Your task to perform on an android device: toggle notifications settings in the gmail app Image 0: 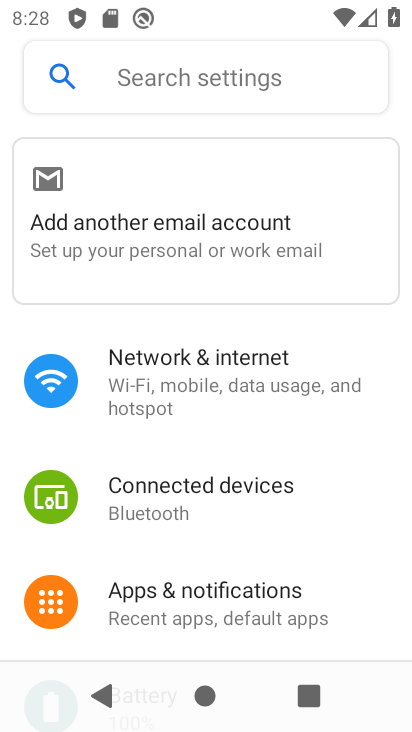
Step 0: press back button
Your task to perform on an android device: toggle notifications settings in the gmail app Image 1: 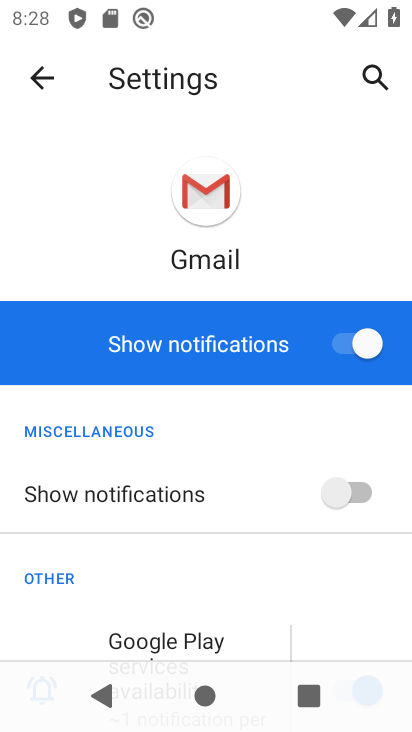
Step 1: drag from (266, 526) to (255, 410)
Your task to perform on an android device: toggle notifications settings in the gmail app Image 2: 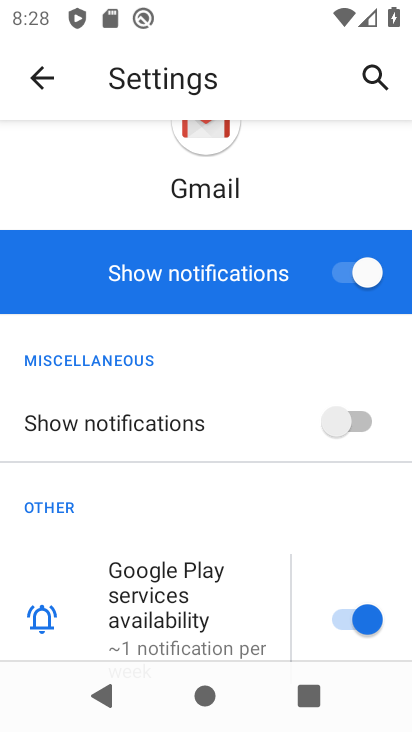
Step 2: click (370, 266)
Your task to perform on an android device: toggle notifications settings in the gmail app Image 3: 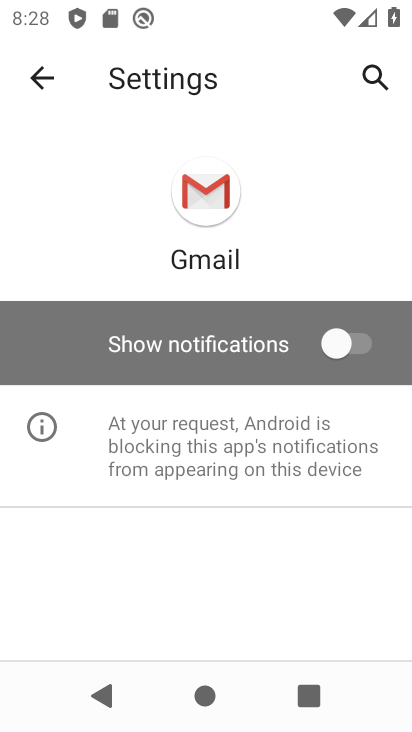
Step 3: task complete